Your task to perform on an android device: Go to CNN.com Image 0: 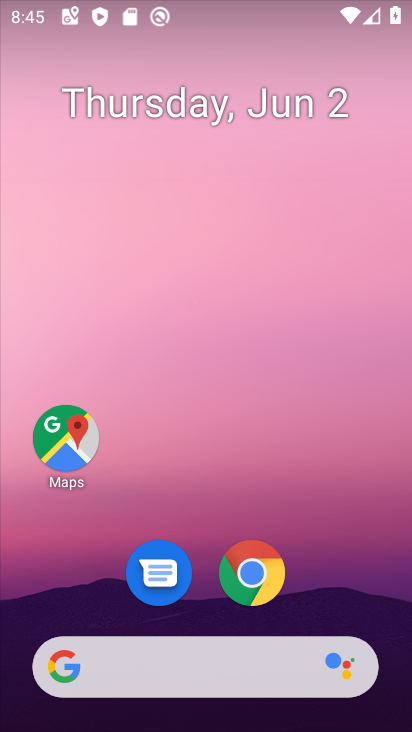
Step 0: click (260, 559)
Your task to perform on an android device: Go to CNN.com Image 1: 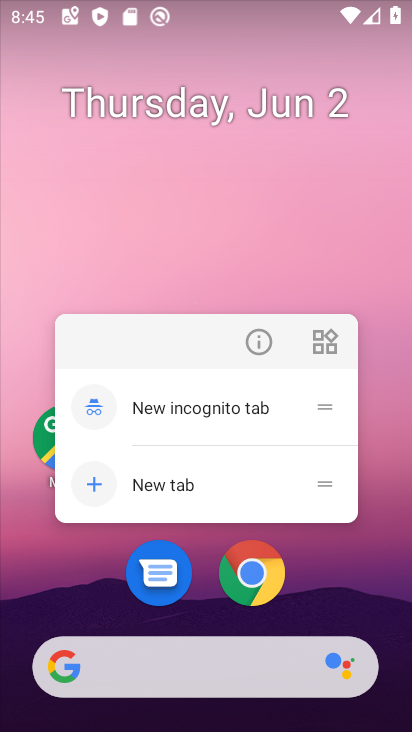
Step 1: click (260, 569)
Your task to perform on an android device: Go to CNN.com Image 2: 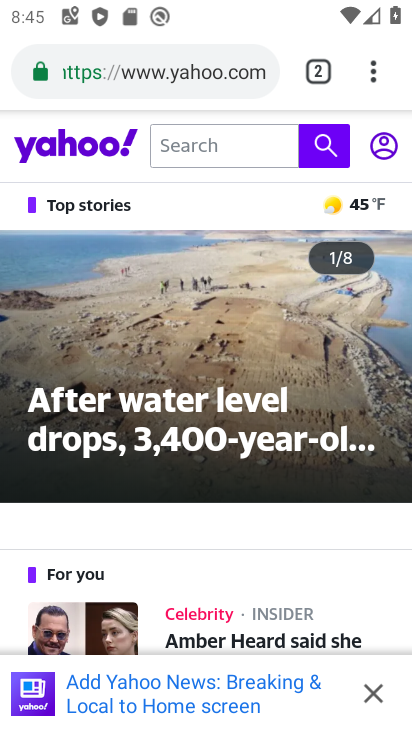
Step 2: click (134, 73)
Your task to perform on an android device: Go to CNN.com Image 3: 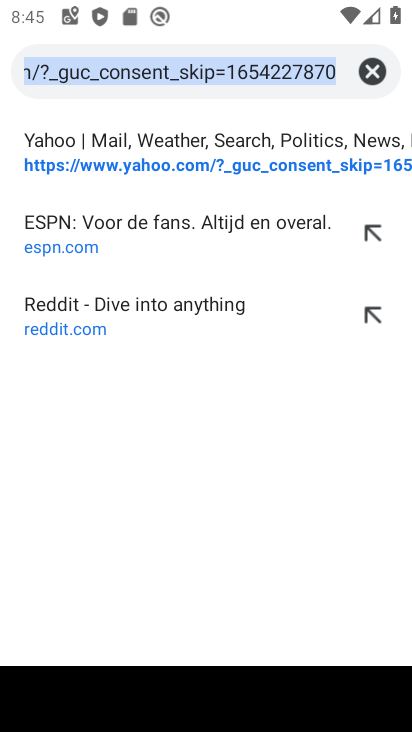
Step 3: click (363, 72)
Your task to perform on an android device: Go to CNN.com Image 4: 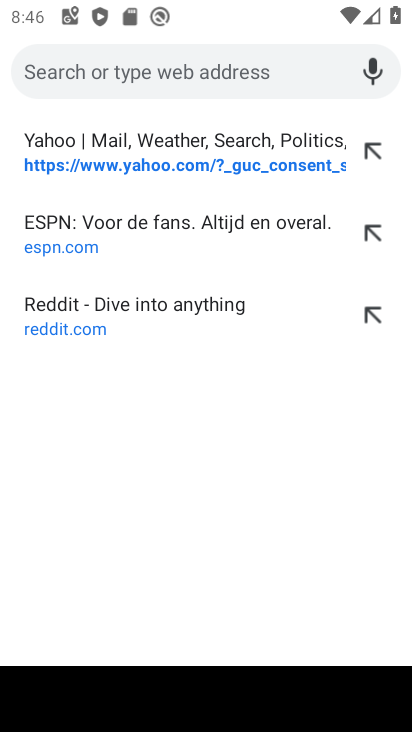
Step 4: type "CNN.com"
Your task to perform on an android device: Go to CNN.com Image 5: 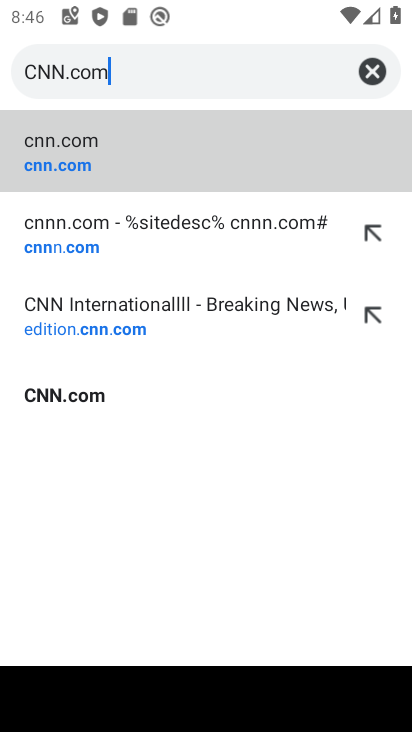
Step 5: type ""
Your task to perform on an android device: Go to CNN.com Image 6: 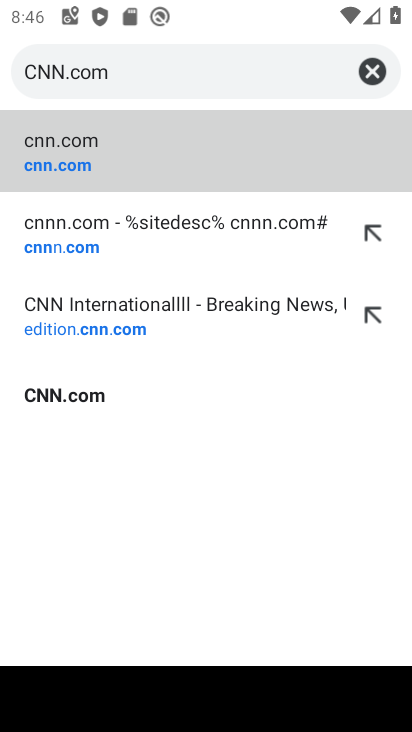
Step 6: click (313, 142)
Your task to perform on an android device: Go to CNN.com Image 7: 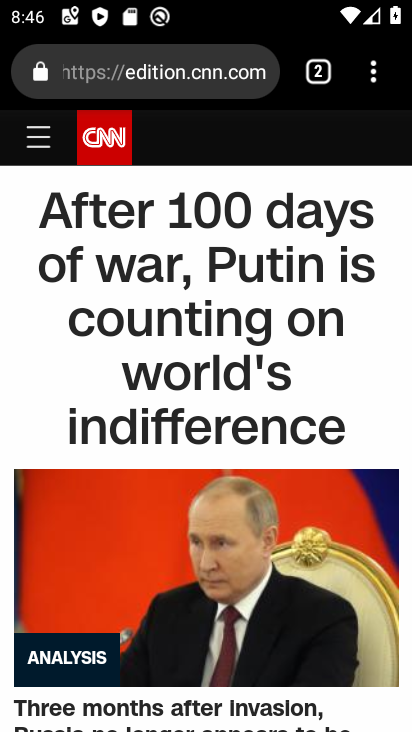
Step 7: task complete